Your task to perform on an android device: open app "Google Play Games" (install if not already installed) Image 0: 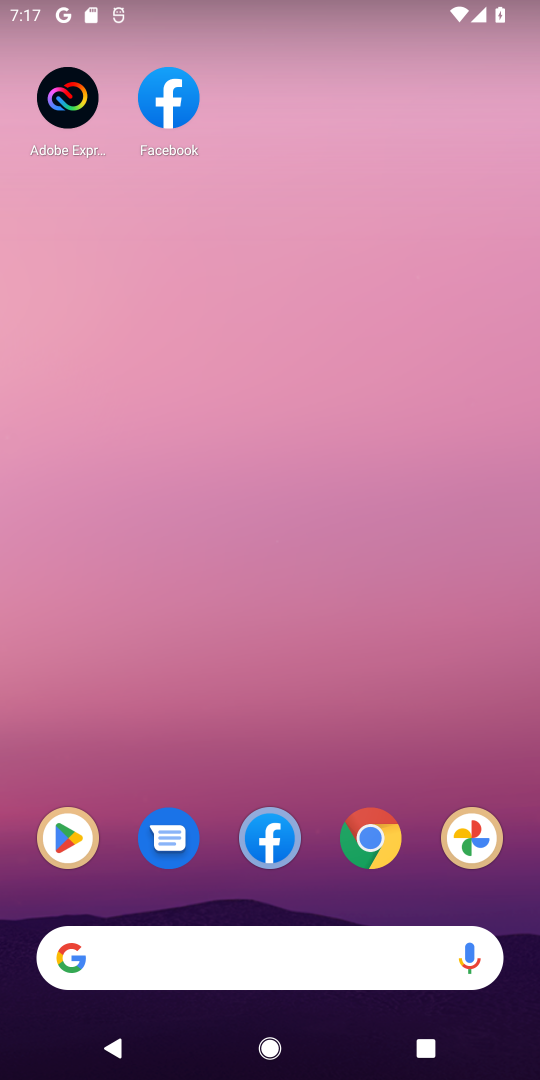
Step 0: click (75, 834)
Your task to perform on an android device: open app "Google Play Games" (install if not already installed) Image 1: 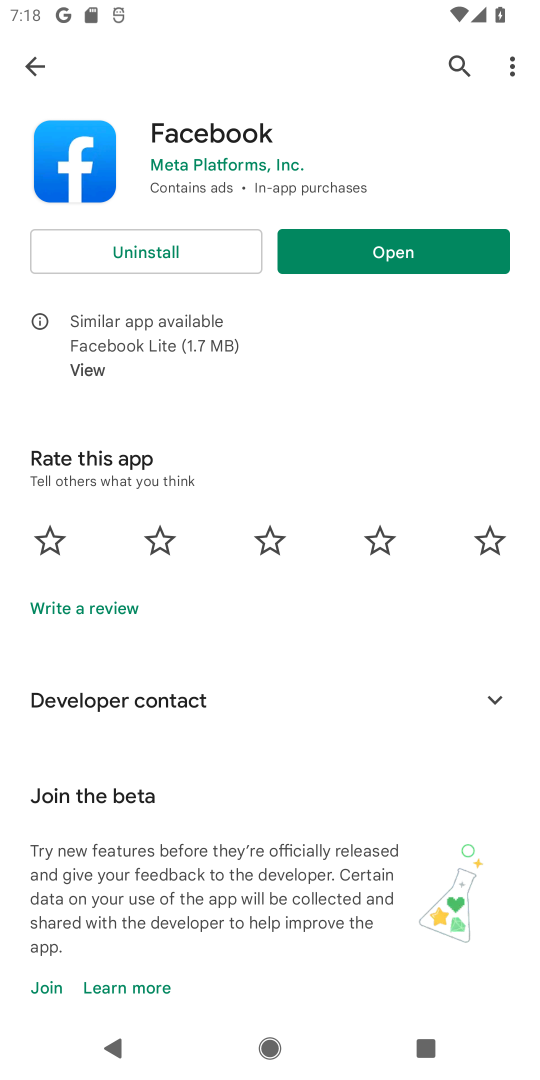
Step 1: click (29, 53)
Your task to perform on an android device: open app "Google Play Games" (install if not already installed) Image 2: 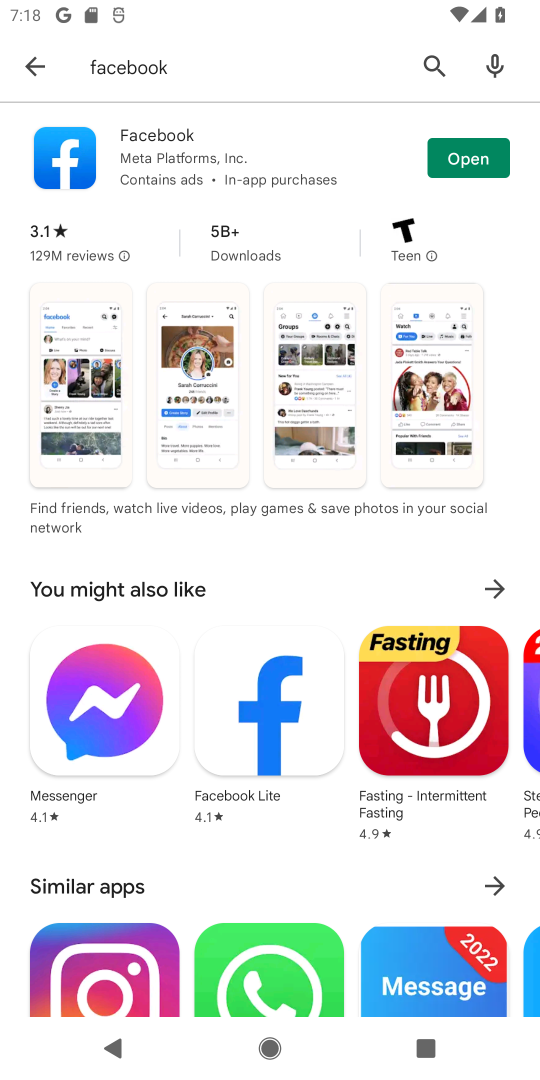
Step 2: click (45, 62)
Your task to perform on an android device: open app "Google Play Games" (install if not already installed) Image 3: 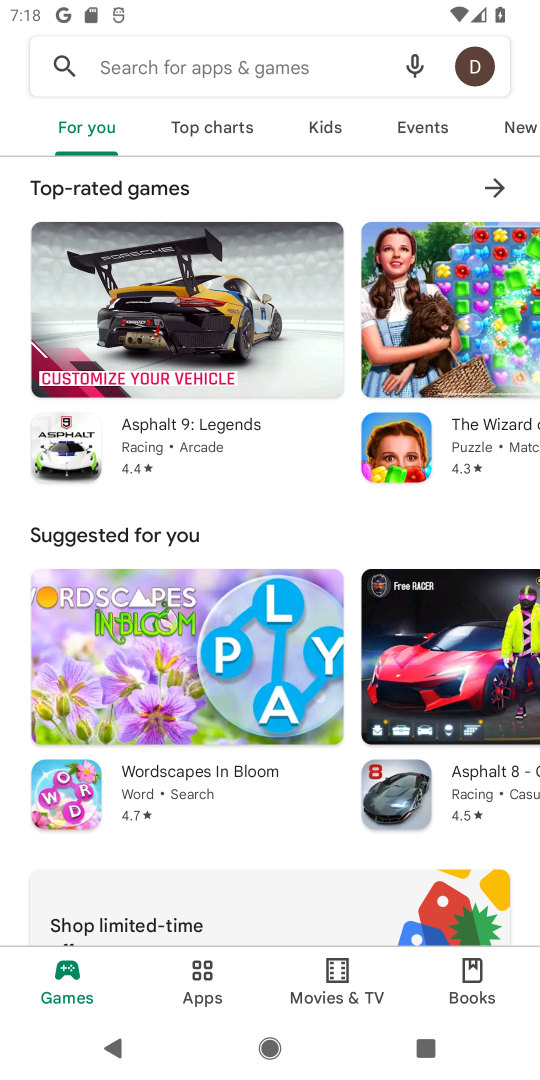
Step 3: click (146, 70)
Your task to perform on an android device: open app "Google Play Games" (install if not already installed) Image 4: 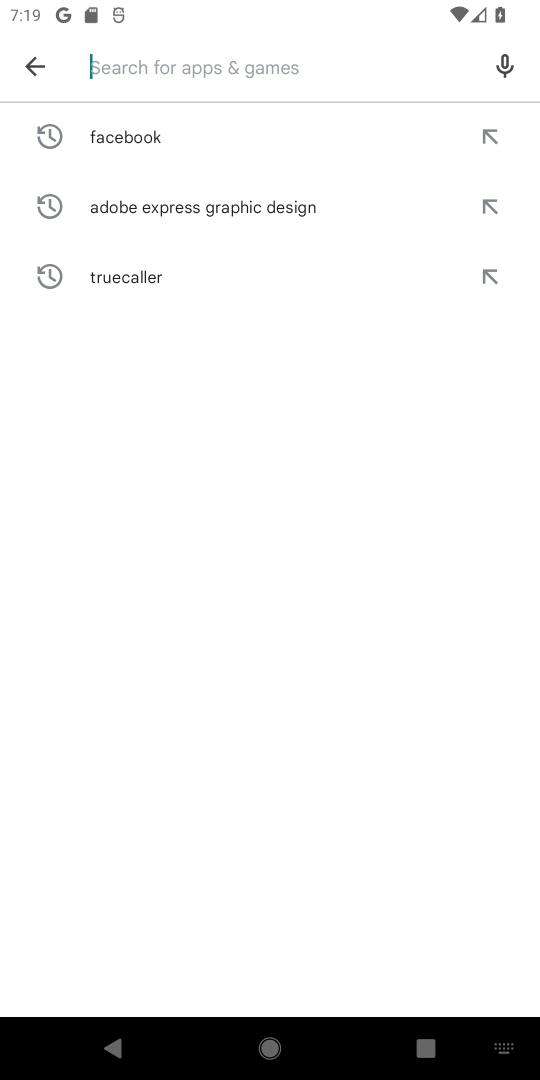
Step 4: type "Google Play Games"
Your task to perform on an android device: open app "Google Play Games" (install if not already installed) Image 5: 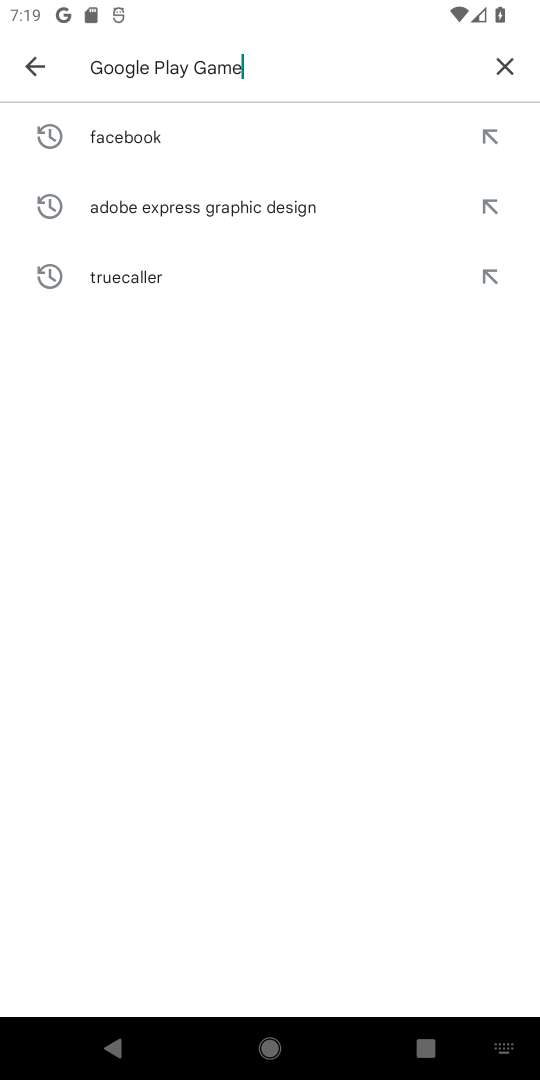
Step 5: type ""
Your task to perform on an android device: open app "Google Play Games" (install if not already installed) Image 6: 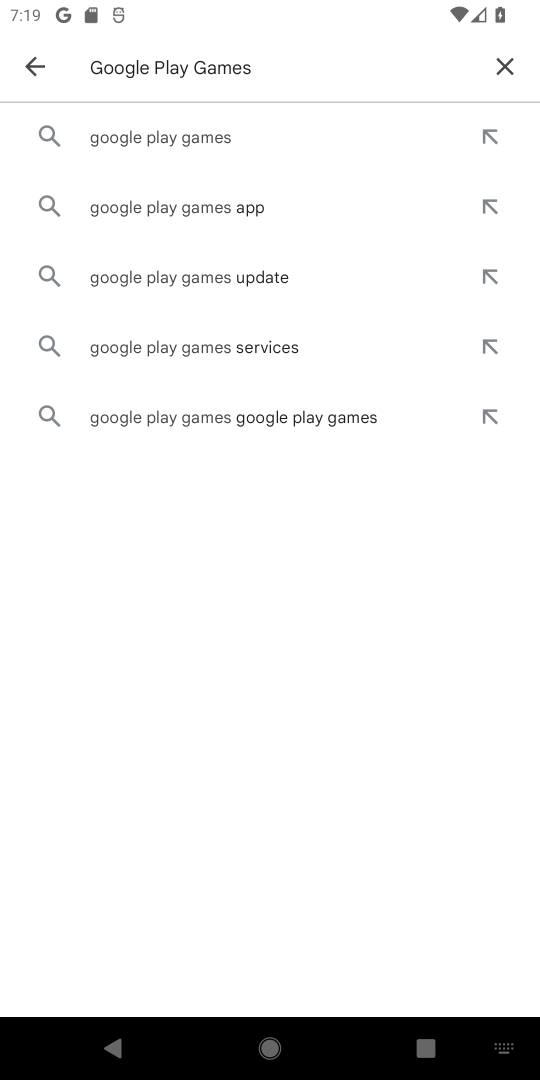
Step 6: click (230, 142)
Your task to perform on an android device: open app "Google Play Games" (install if not already installed) Image 7: 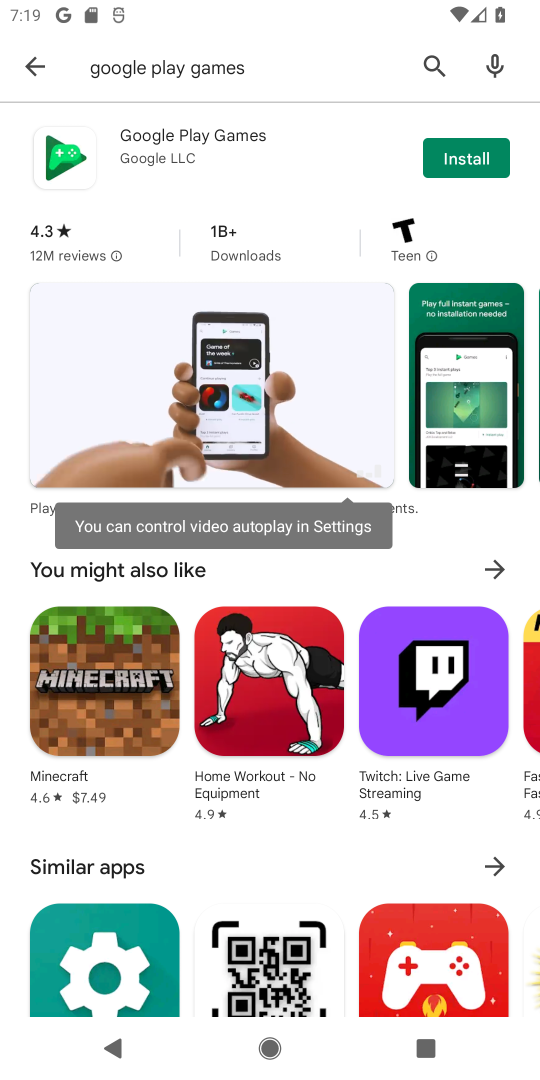
Step 7: click (449, 156)
Your task to perform on an android device: open app "Google Play Games" (install if not already installed) Image 8: 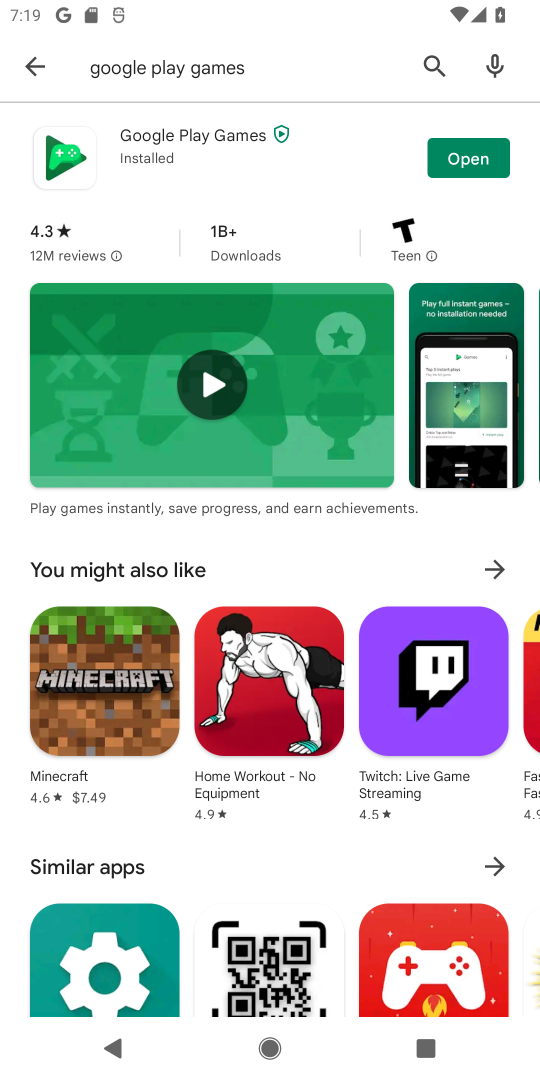
Step 8: click (455, 166)
Your task to perform on an android device: open app "Google Play Games" (install if not already installed) Image 9: 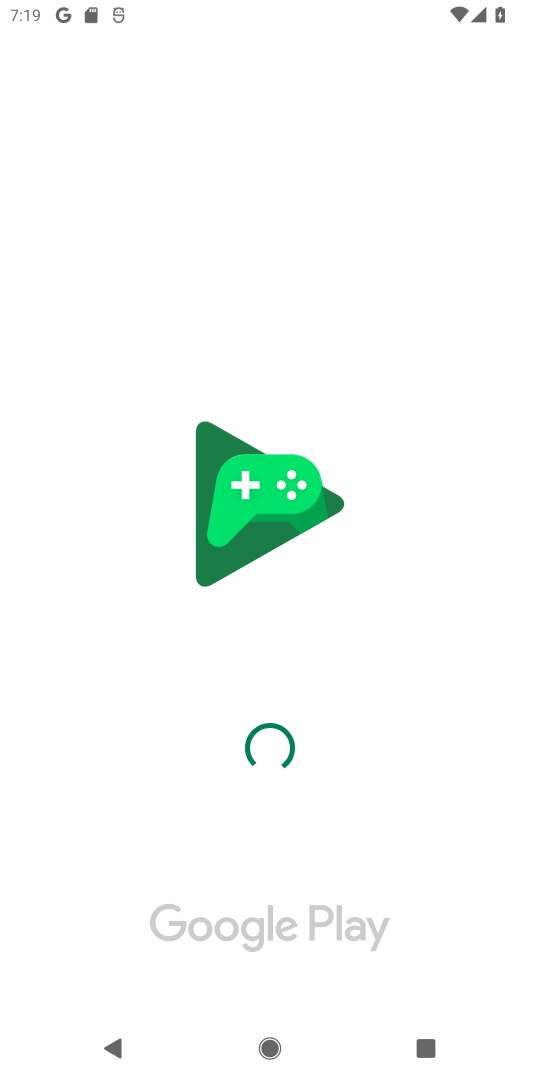
Step 9: task complete